Your task to perform on an android device: open app "McDonald's" (install if not already installed) and enter user name: "copes@yahoo.com" and password: "Rhenish" Image 0: 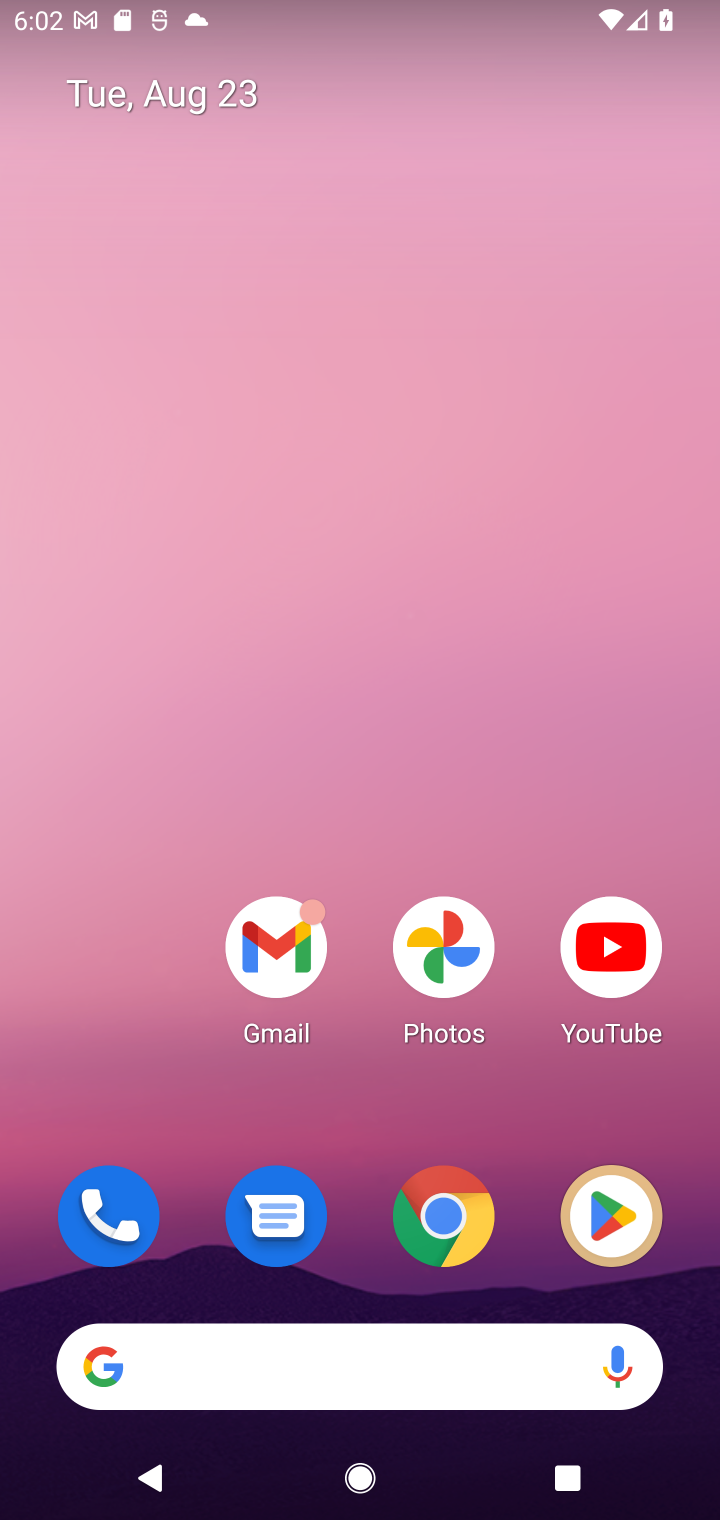
Step 0: drag from (427, 1304) to (355, 206)
Your task to perform on an android device: open app "McDonald's" (install if not already installed) and enter user name: "copes@yahoo.com" and password: "Rhenish" Image 1: 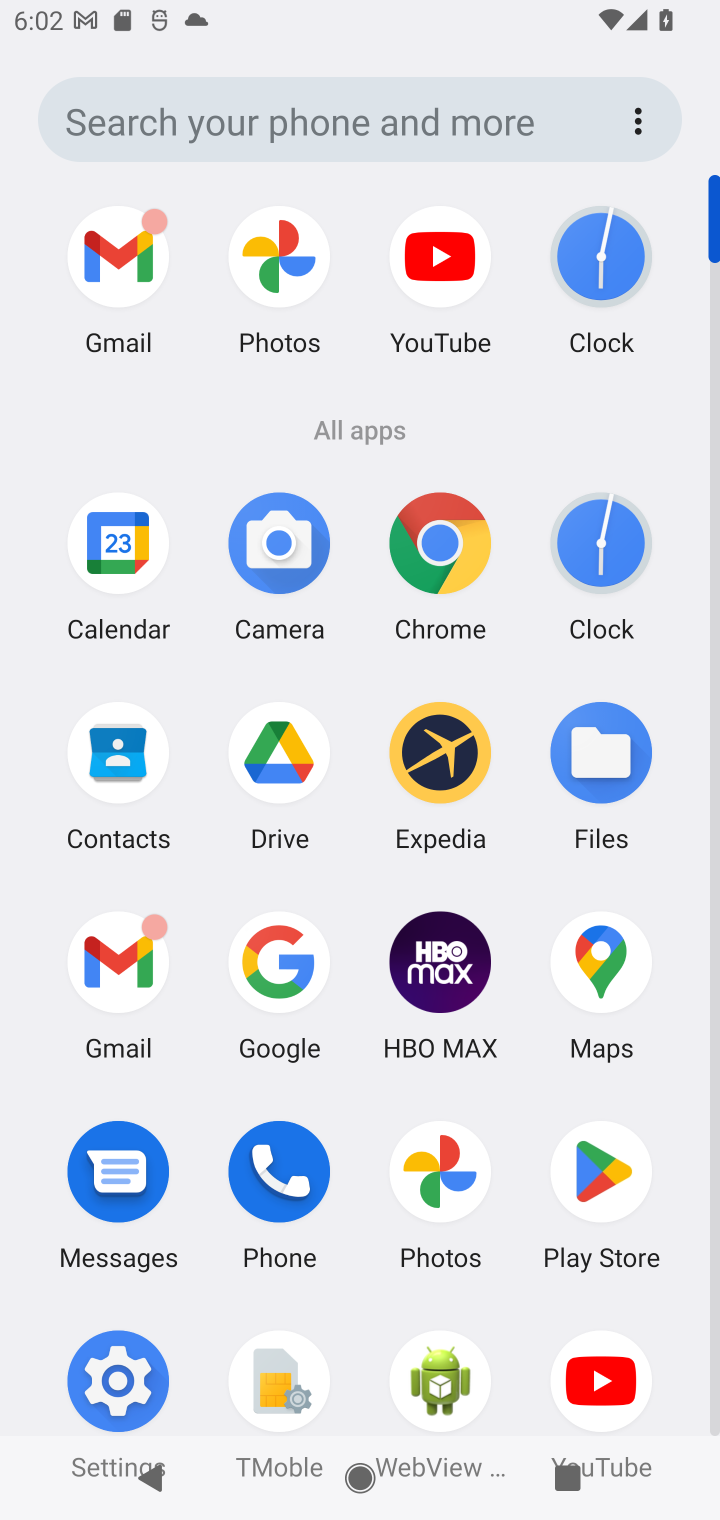
Step 1: click (607, 1165)
Your task to perform on an android device: open app "McDonald's" (install if not already installed) and enter user name: "copes@yahoo.com" and password: "Rhenish" Image 2: 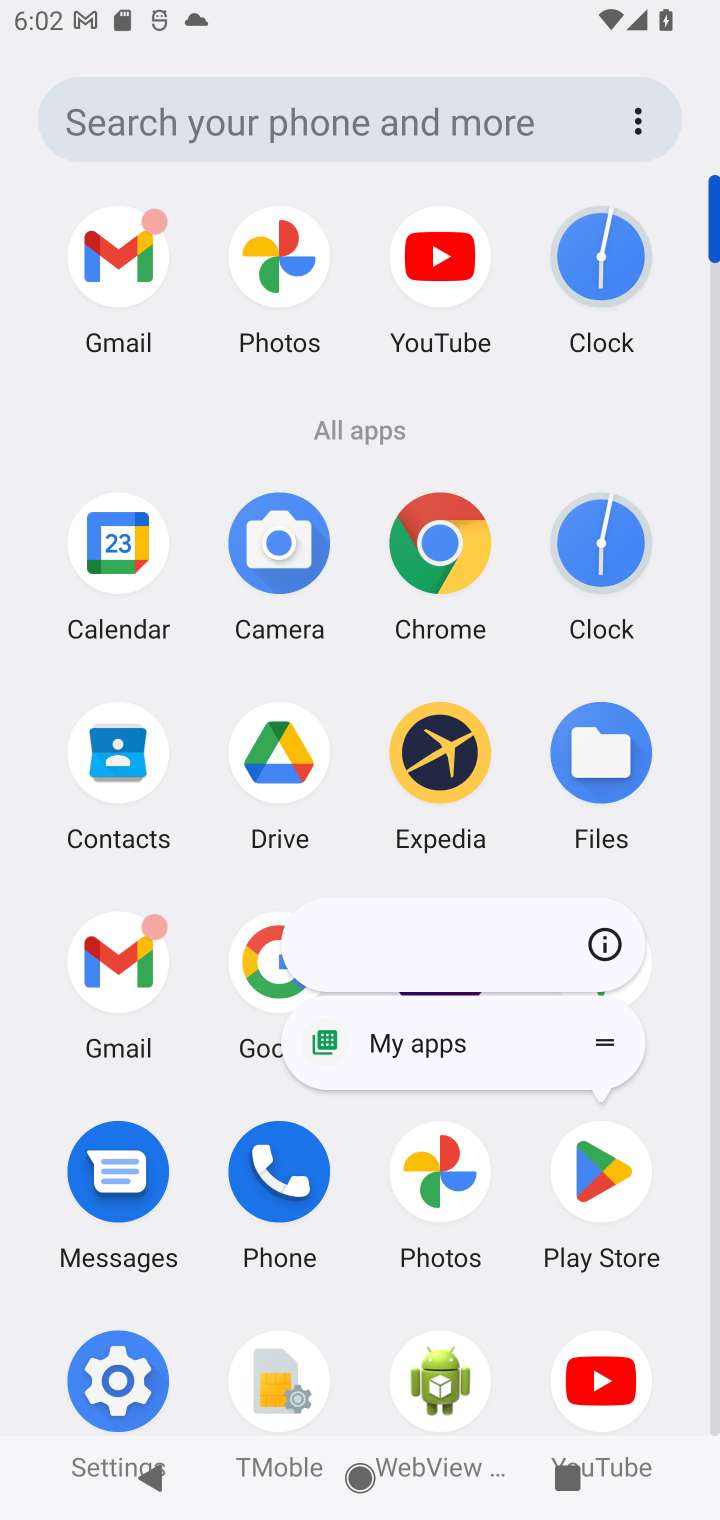
Step 2: click (613, 1174)
Your task to perform on an android device: open app "McDonald's" (install if not already installed) and enter user name: "copes@yahoo.com" and password: "Rhenish" Image 3: 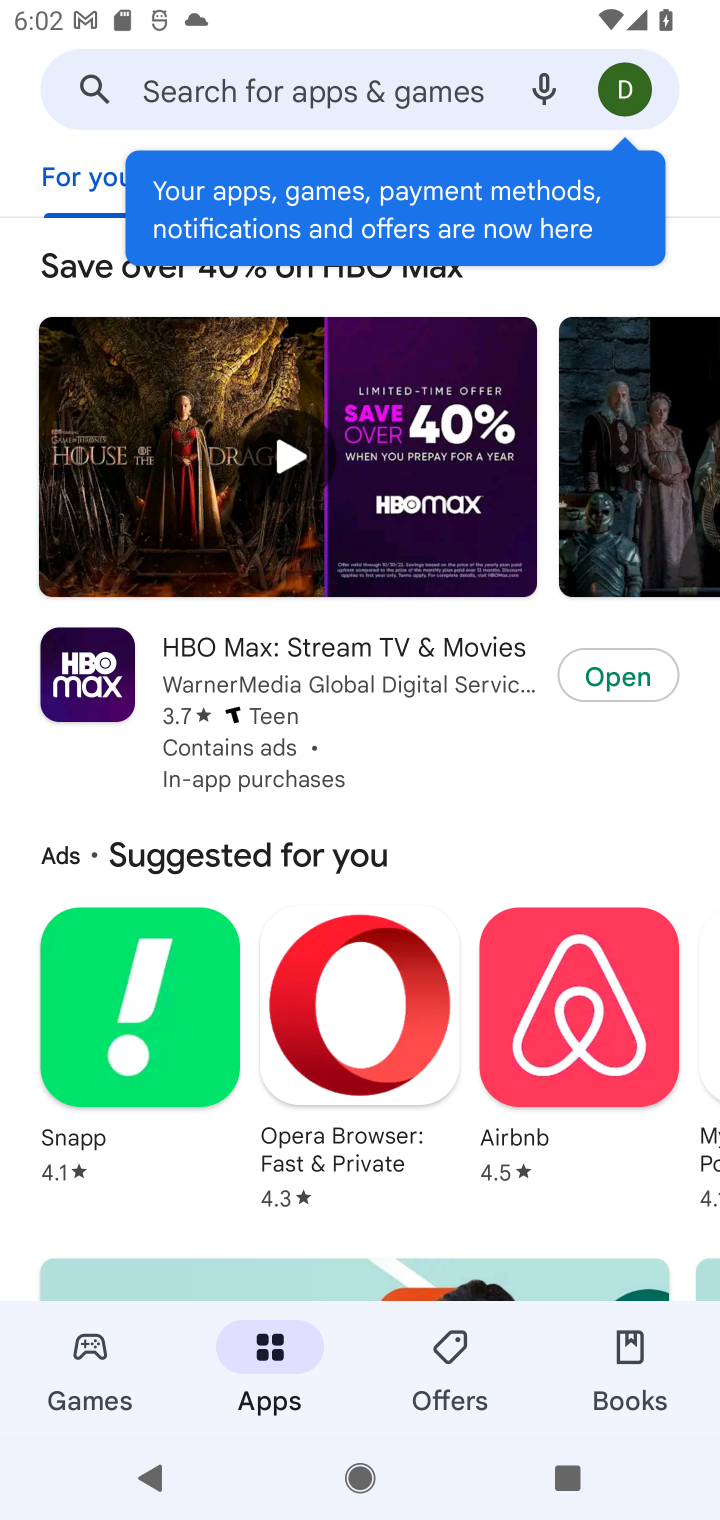
Step 3: click (351, 91)
Your task to perform on an android device: open app "McDonald's" (install if not already installed) and enter user name: "copes@yahoo.com" and password: "Rhenish" Image 4: 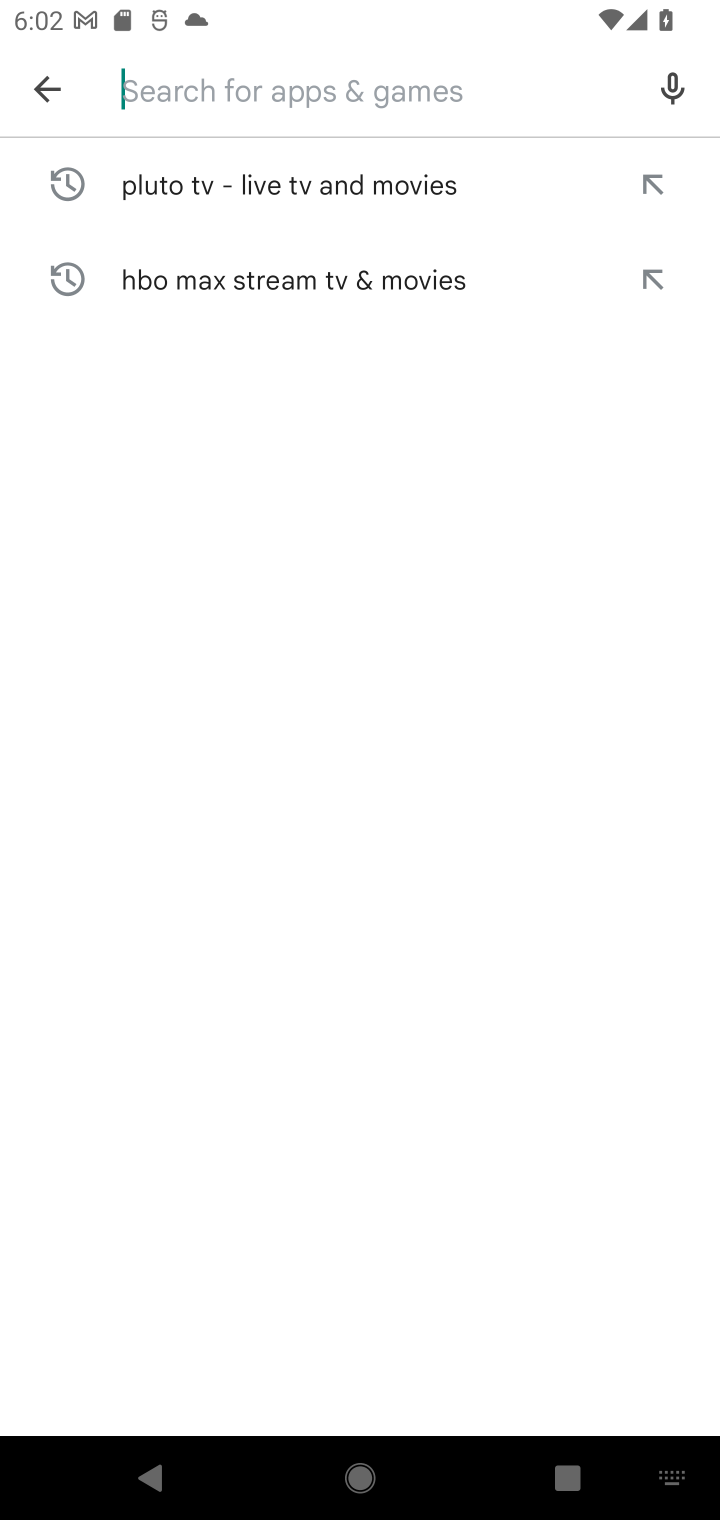
Step 4: type "McDonald's"
Your task to perform on an android device: open app "McDonald's" (install if not already installed) and enter user name: "copes@yahoo.com" and password: "Rhenish" Image 5: 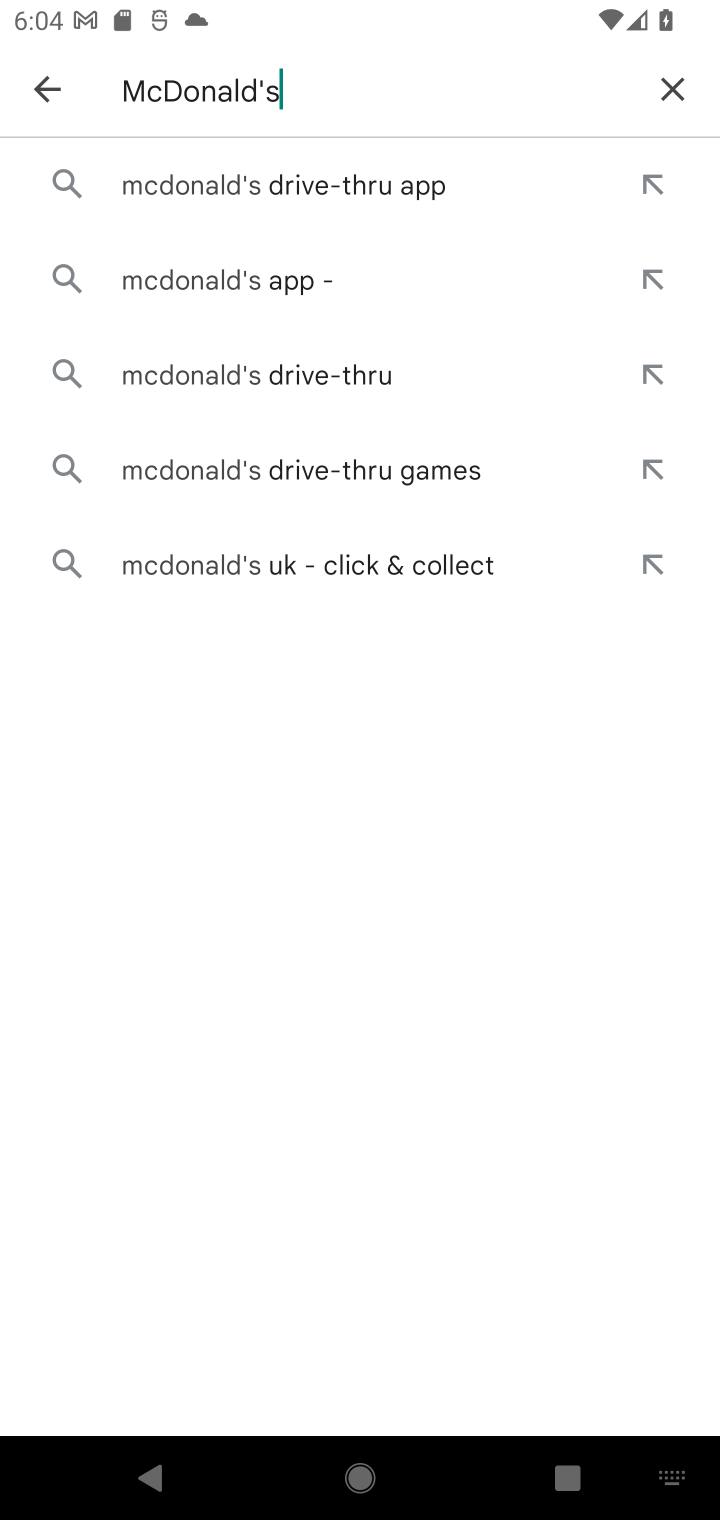
Step 5: click (236, 191)
Your task to perform on an android device: open app "McDonald's" (install if not already installed) and enter user name: "copes@yahoo.com" and password: "Rhenish" Image 6: 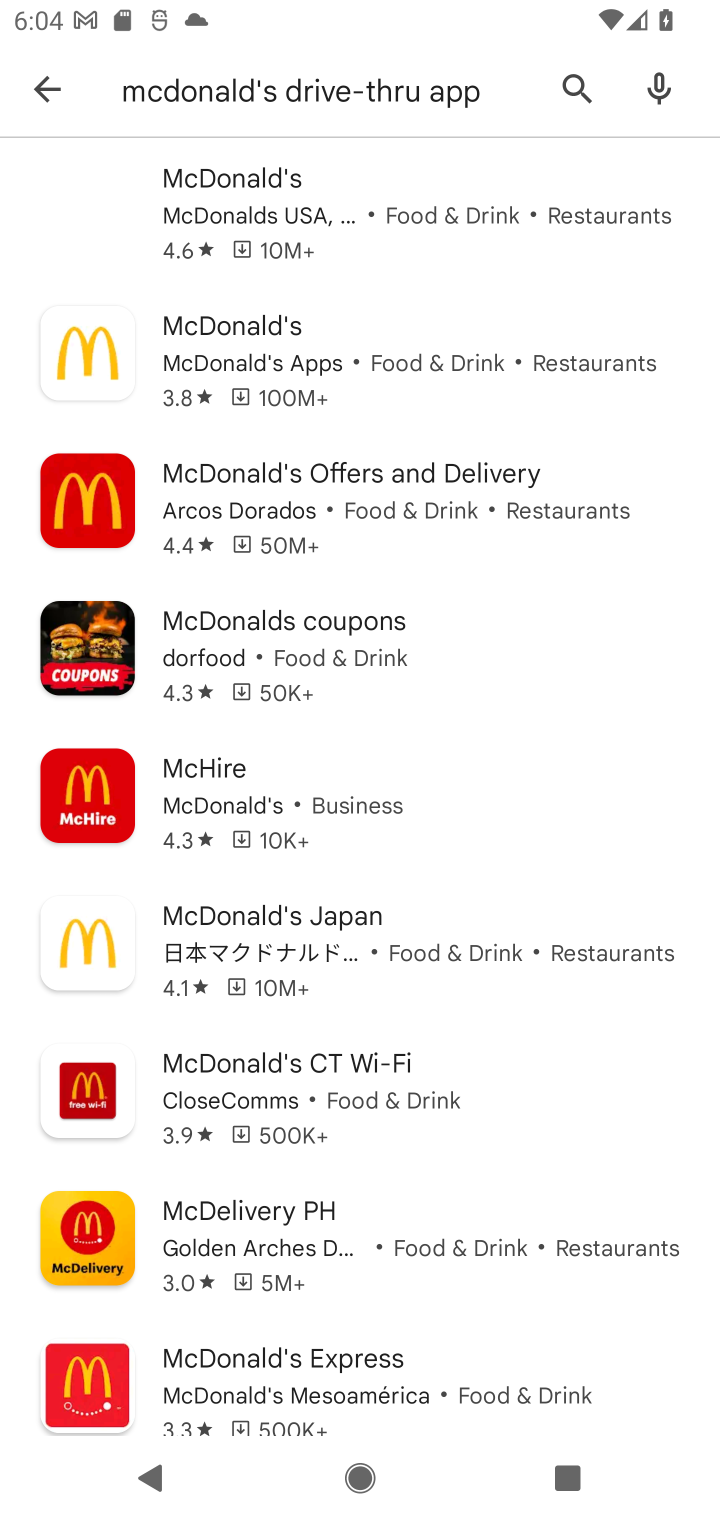
Step 6: click (318, 342)
Your task to perform on an android device: open app "McDonald's" (install if not already installed) and enter user name: "copes@yahoo.com" and password: "Rhenish" Image 7: 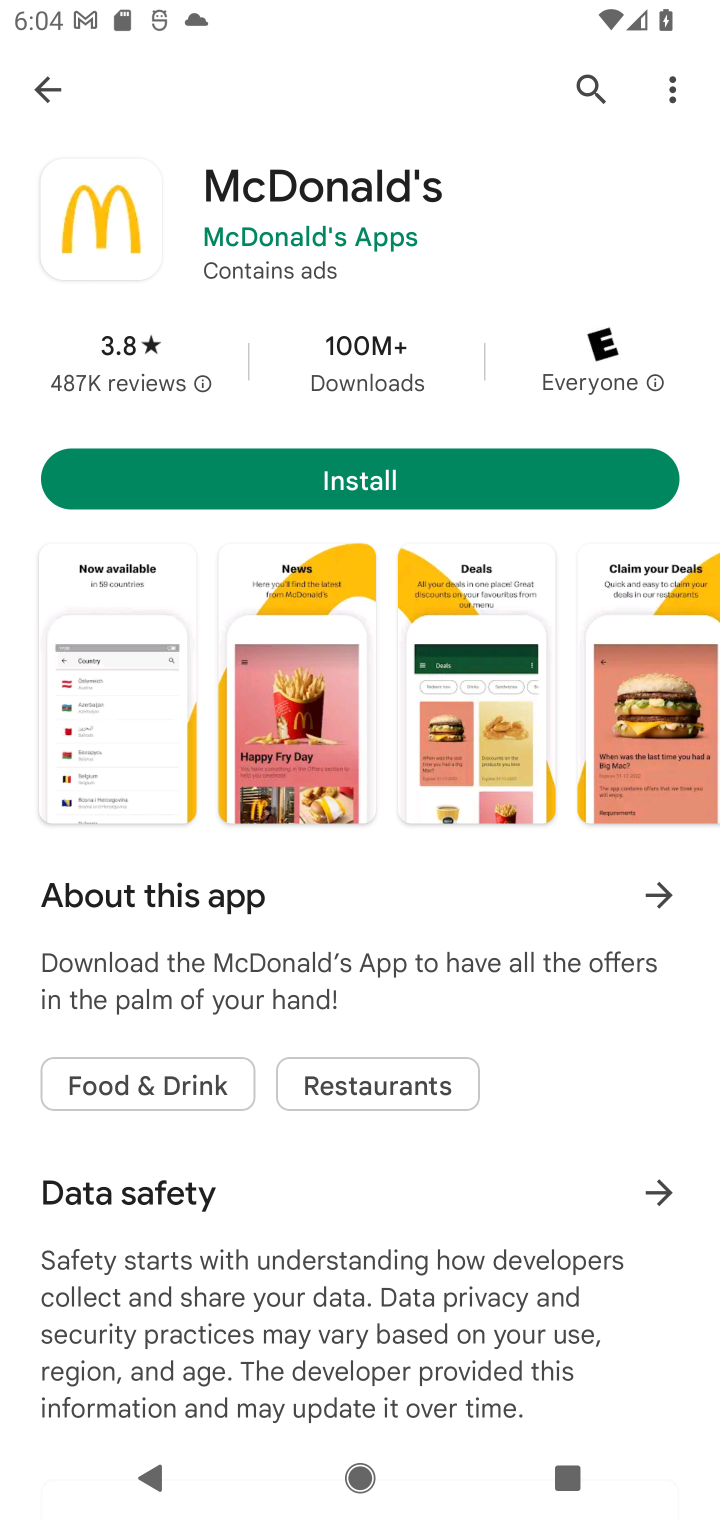
Step 7: click (349, 492)
Your task to perform on an android device: open app "McDonald's" (install if not already installed) and enter user name: "copes@yahoo.com" and password: "Rhenish" Image 8: 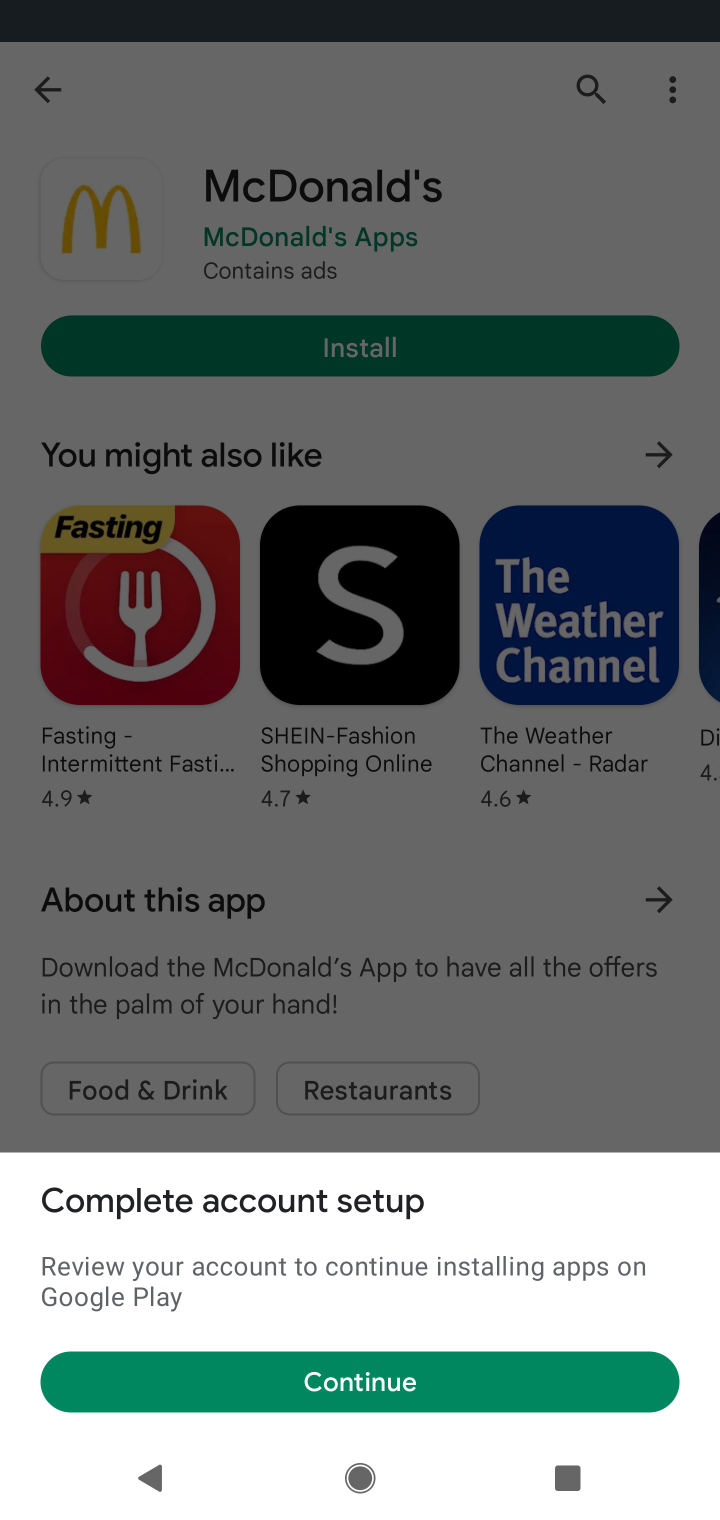
Step 8: click (352, 1407)
Your task to perform on an android device: open app "McDonald's" (install if not already installed) and enter user name: "copes@yahoo.com" and password: "Rhenish" Image 9: 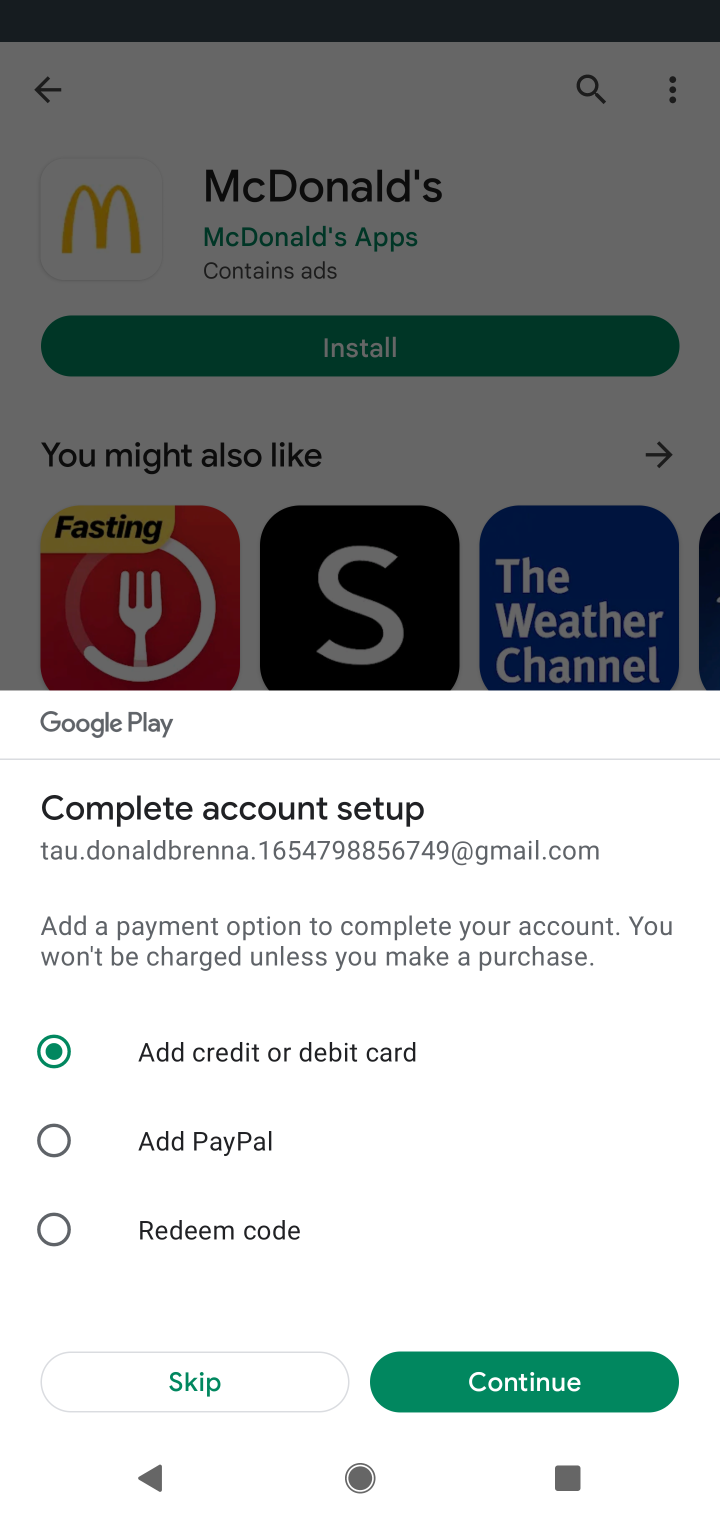
Step 9: click (187, 1373)
Your task to perform on an android device: open app "McDonald's" (install if not already installed) and enter user name: "copes@yahoo.com" and password: "Rhenish" Image 10: 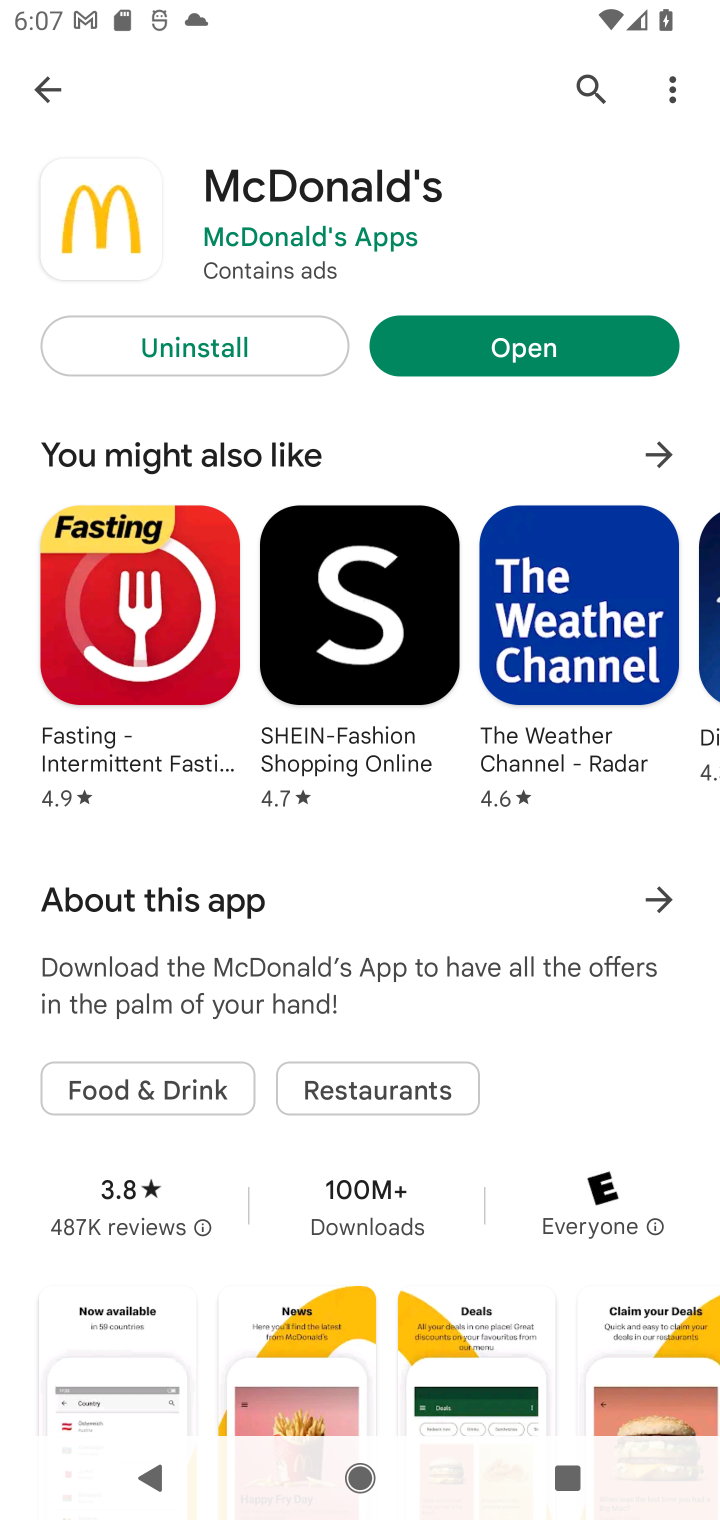
Step 10: click (599, 375)
Your task to perform on an android device: open app "McDonald's" (install if not already installed) and enter user name: "copes@yahoo.com" and password: "Rhenish" Image 11: 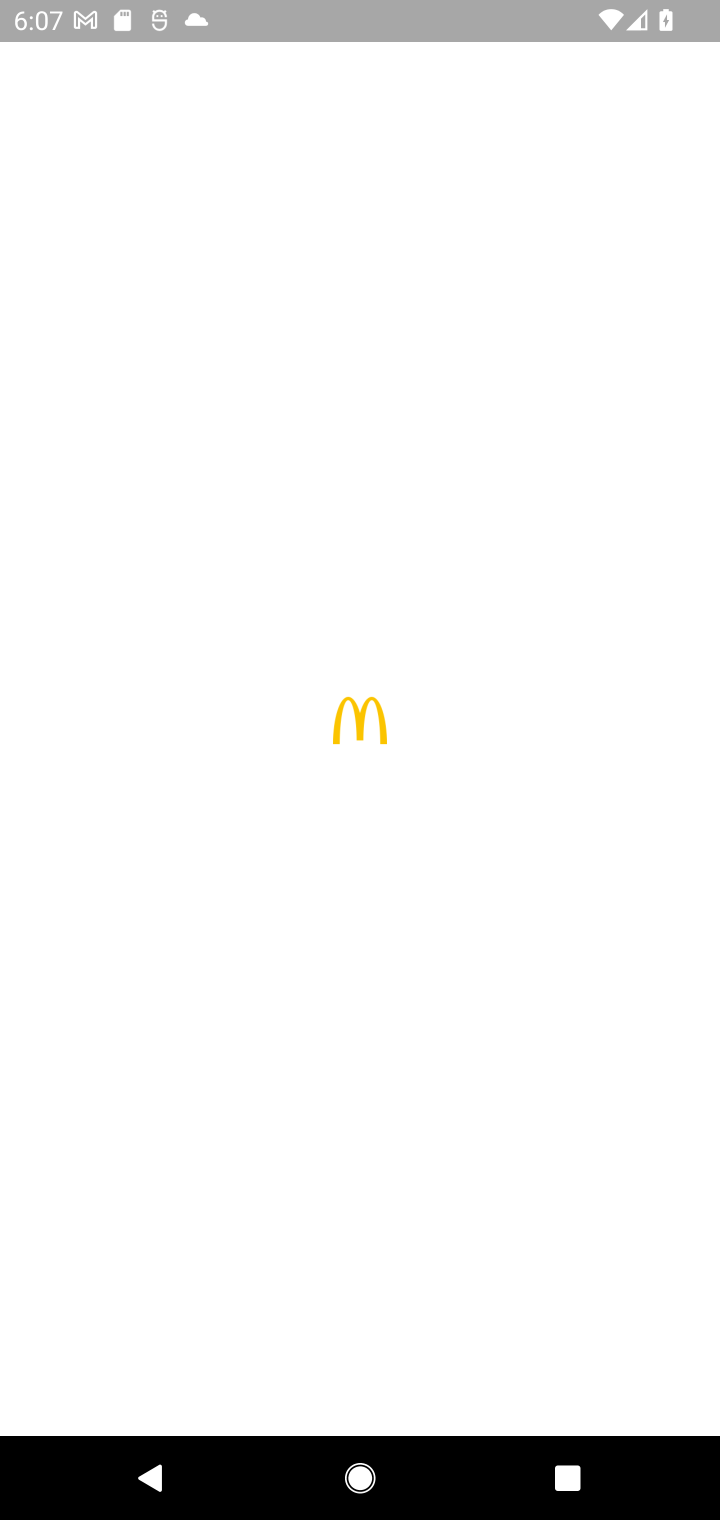
Step 11: task complete